Your task to perform on an android device: allow cookies in the chrome app Image 0: 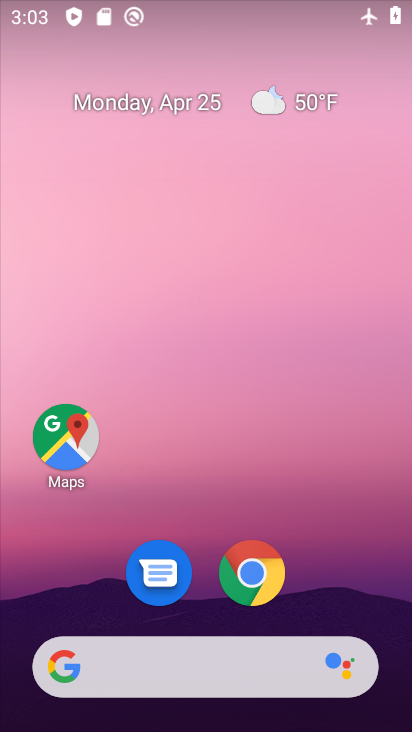
Step 0: drag from (350, 394) to (352, 0)
Your task to perform on an android device: allow cookies in the chrome app Image 1: 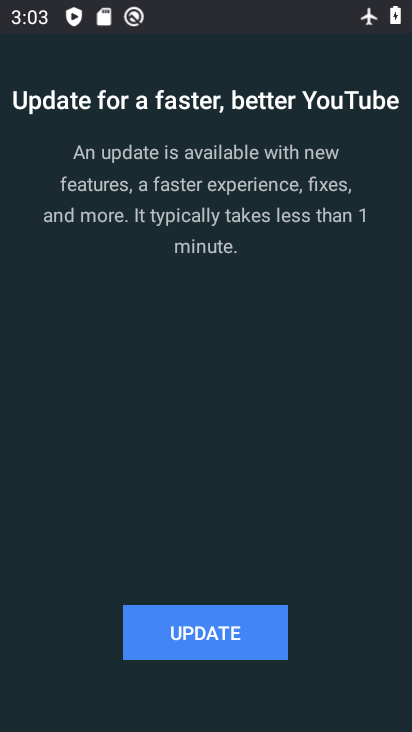
Step 1: press home button
Your task to perform on an android device: allow cookies in the chrome app Image 2: 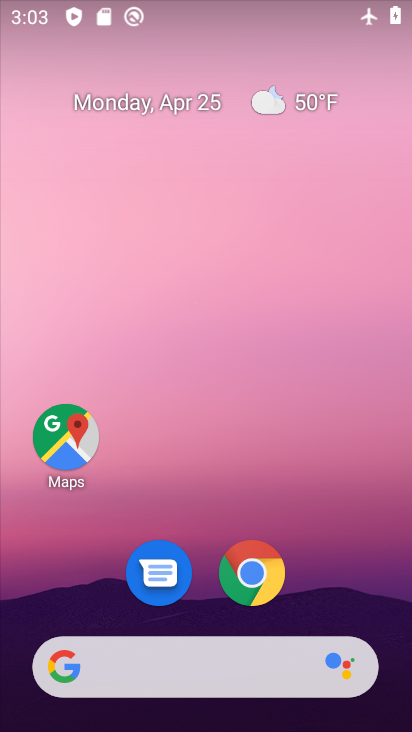
Step 2: drag from (386, 476) to (349, 8)
Your task to perform on an android device: allow cookies in the chrome app Image 3: 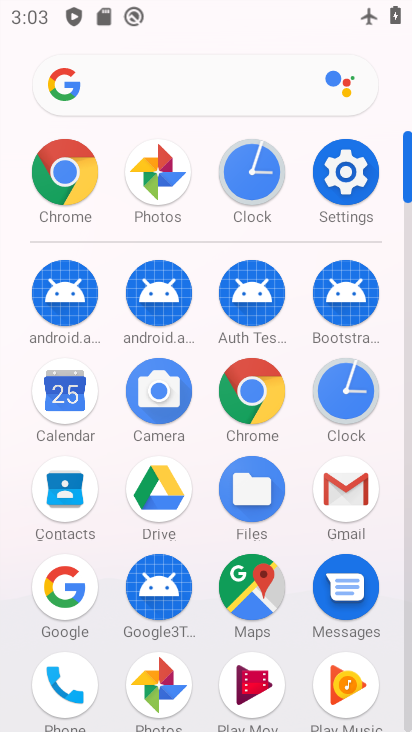
Step 3: click (75, 196)
Your task to perform on an android device: allow cookies in the chrome app Image 4: 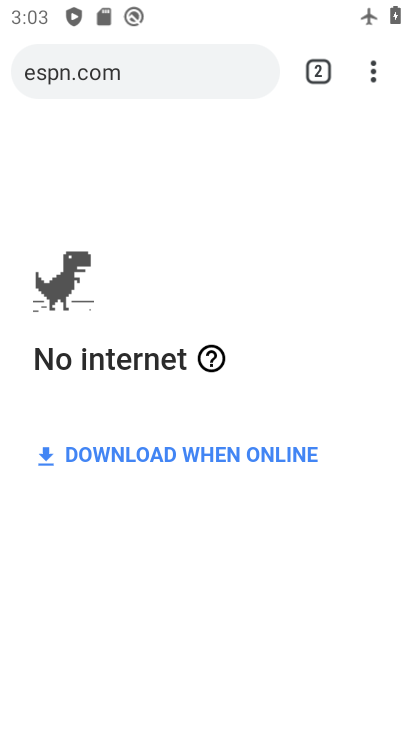
Step 4: drag from (384, 78) to (154, 573)
Your task to perform on an android device: allow cookies in the chrome app Image 5: 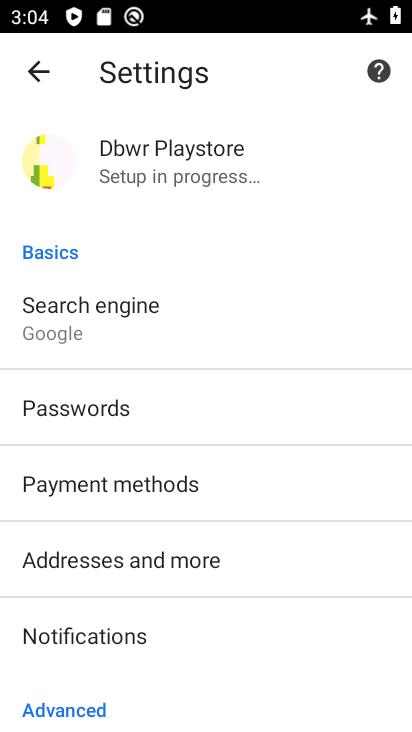
Step 5: click (136, 317)
Your task to perform on an android device: allow cookies in the chrome app Image 6: 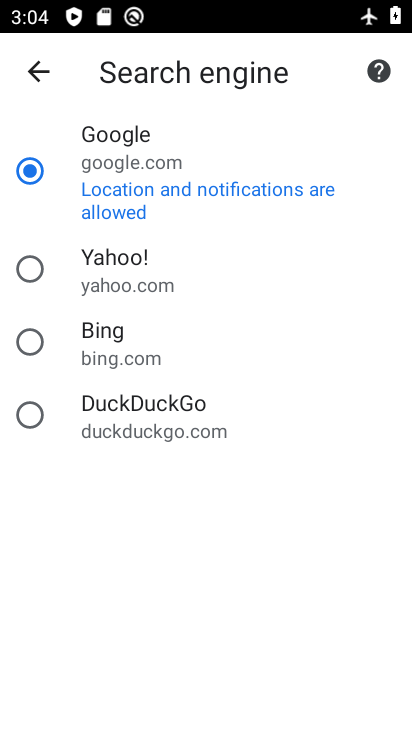
Step 6: click (51, 84)
Your task to perform on an android device: allow cookies in the chrome app Image 7: 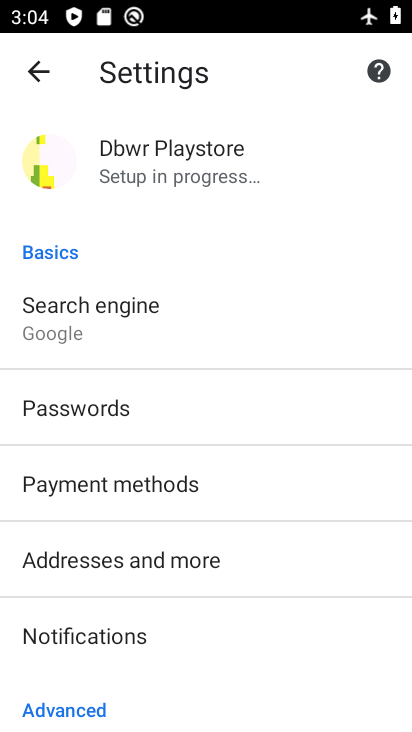
Step 7: drag from (212, 528) to (182, 68)
Your task to perform on an android device: allow cookies in the chrome app Image 8: 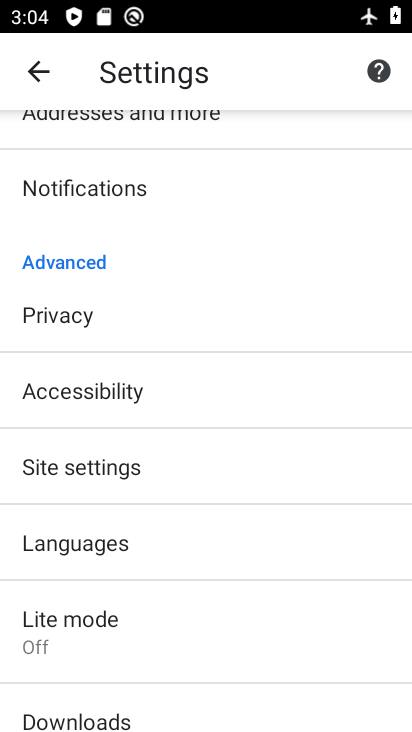
Step 8: click (114, 456)
Your task to perform on an android device: allow cookies in the chrome app Image 9: 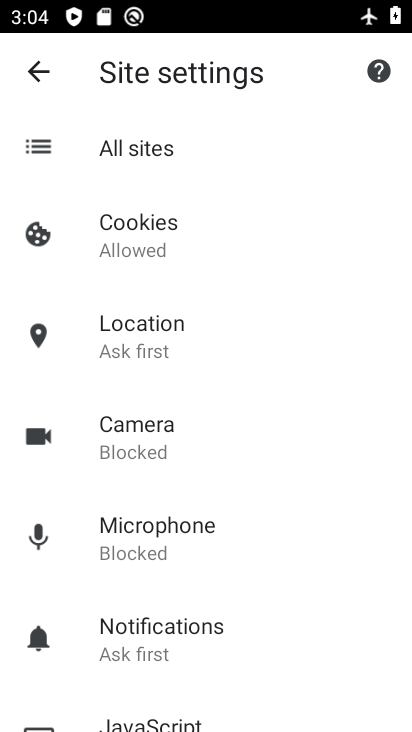
Step 9: click (147, 264)
Your task to perform on an android device: allow cookies in the chrome app Image 10: 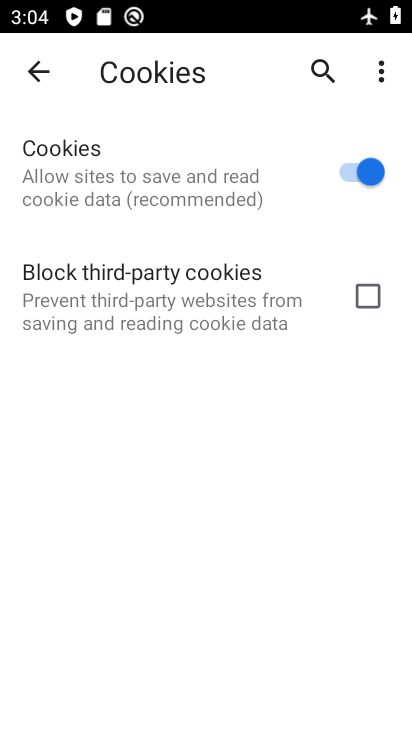
Step 10: task complete